Your task to perform on an android device: turn off notifications in google photos Image 0: 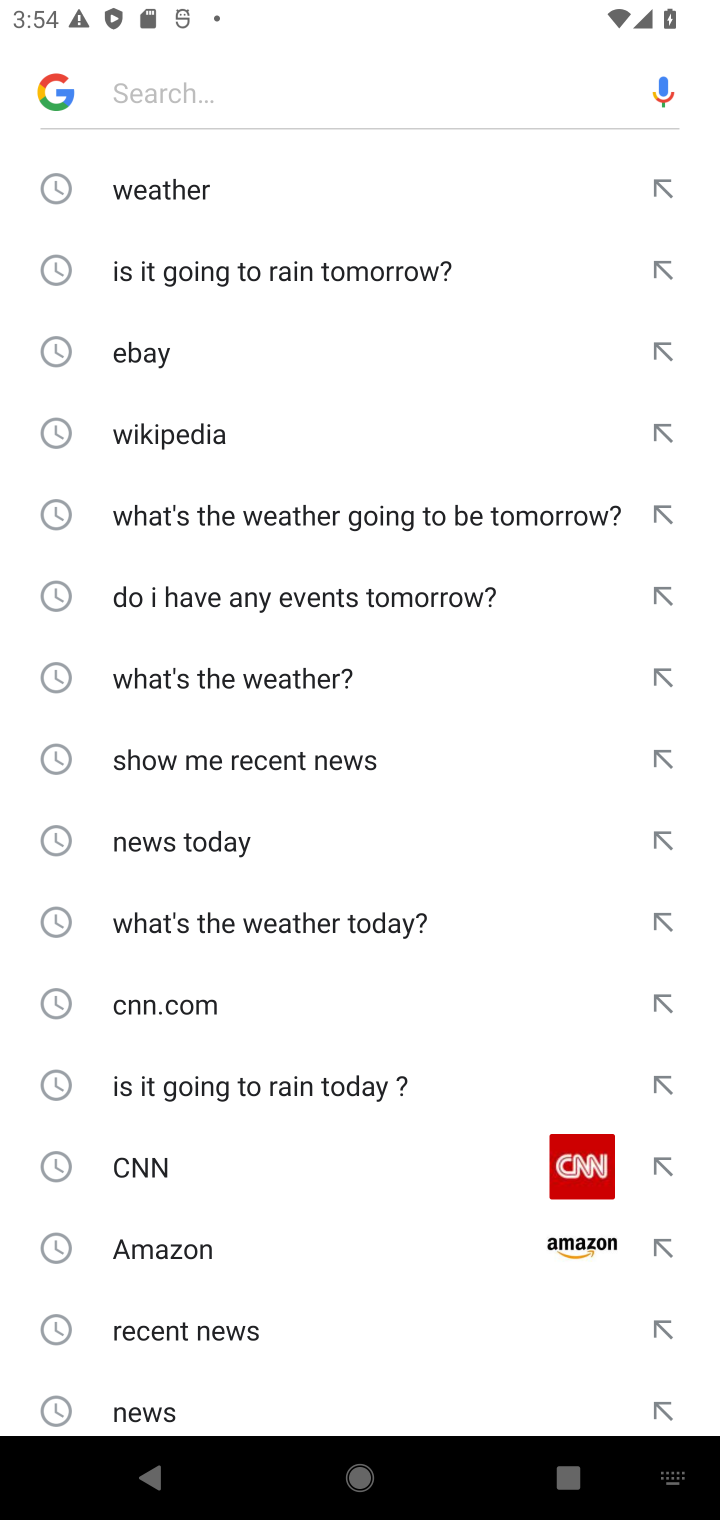
Step 0: press home button
Your task to perform on an android device: turn off notifications in google photos Image 1: 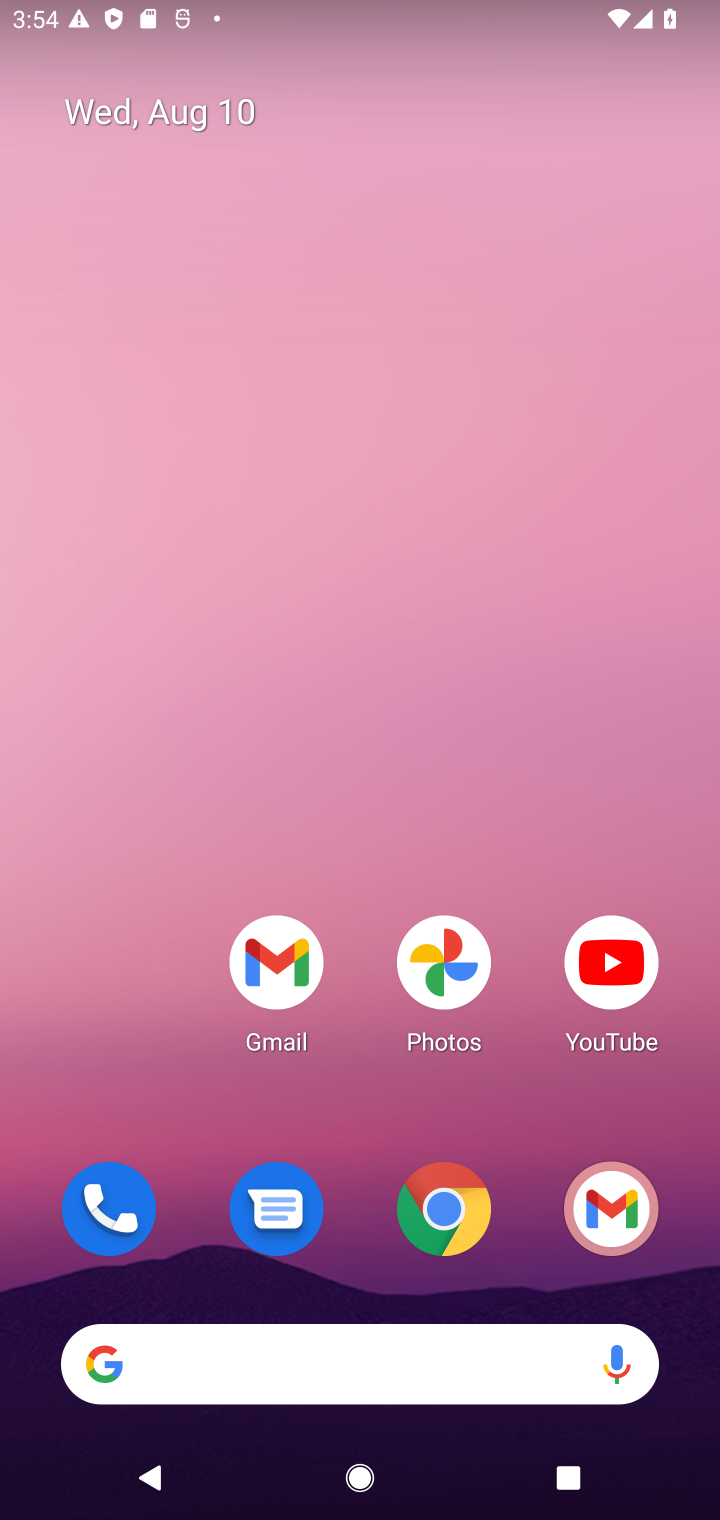
Step 1: click (461, 963)
Your task to perform on an android device: turn off notifications in google photos Image 2: 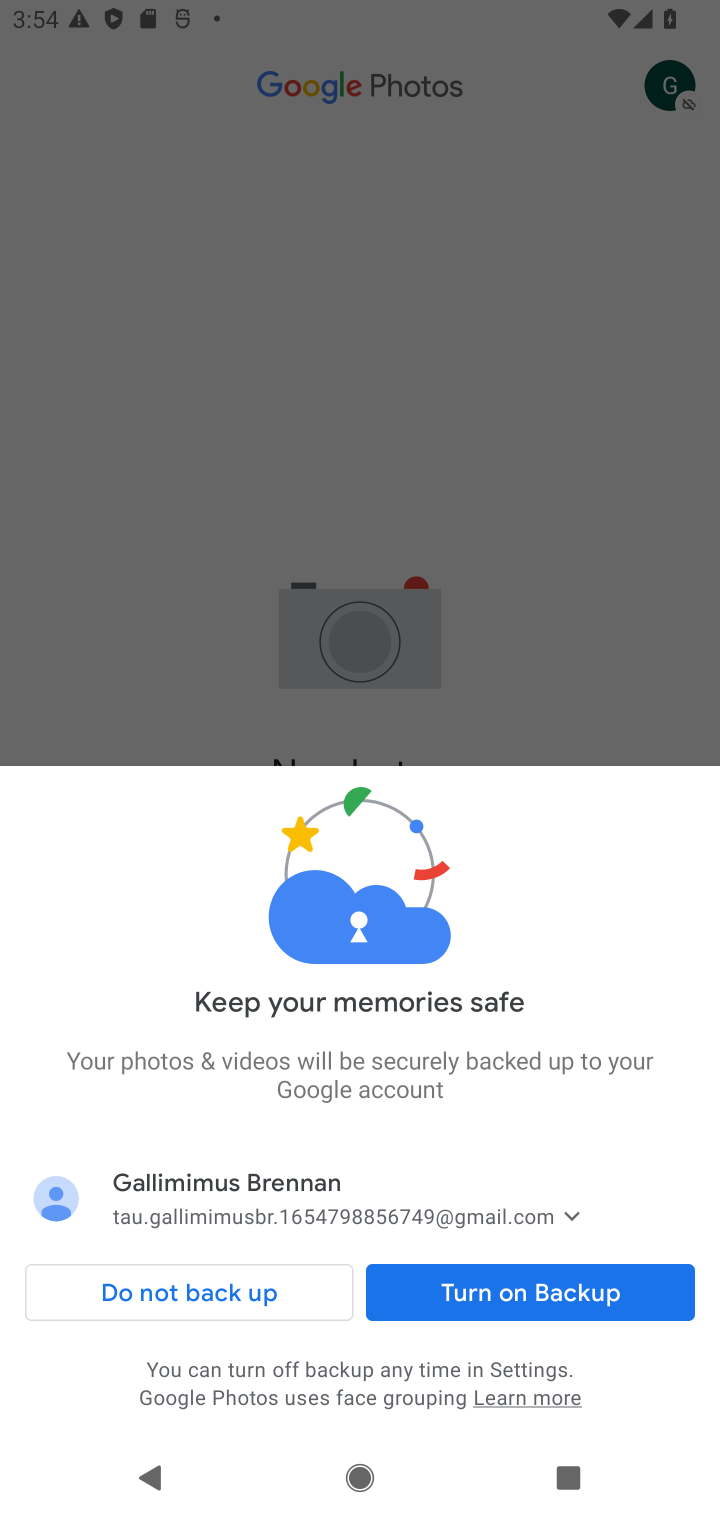
Step 2: click (554, 1287)
Your task to perform on an android device: turn off notifications in google photos Image 3: 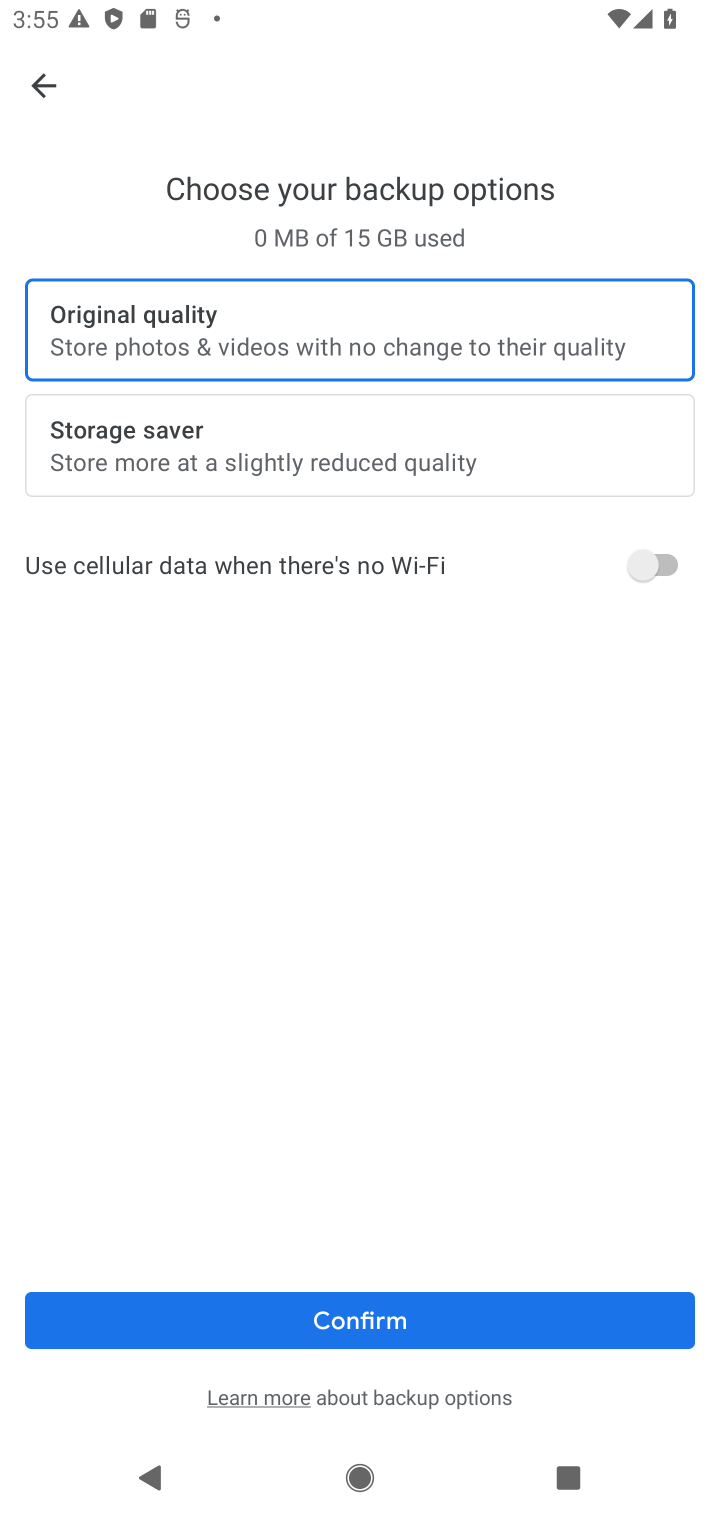
Step 3: click (554, 1287)
Your task to perform on an android device: turn off notifications in google photos Image 4: 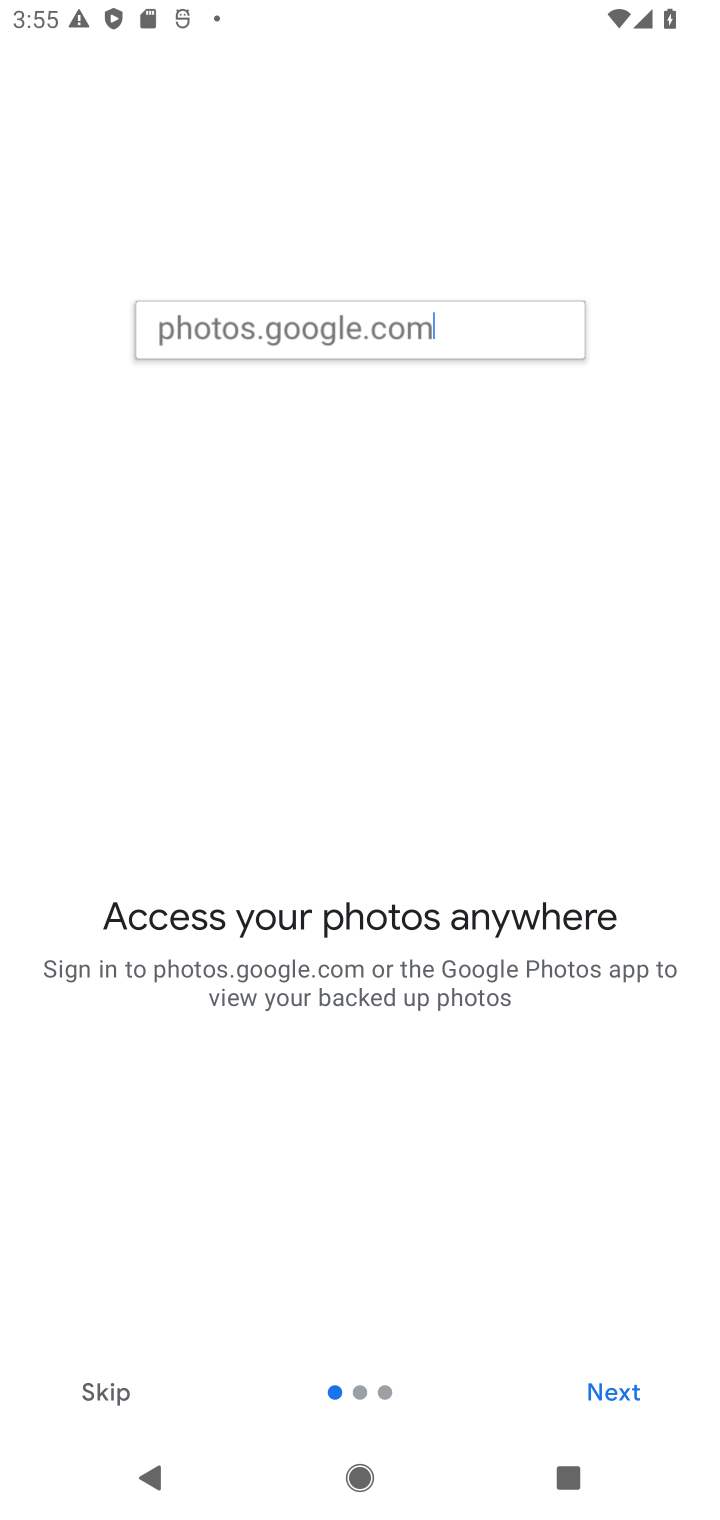
Step 4: click (615, 1381)
Your task to perform on an android device: turn off notifications in google photos Image 5: 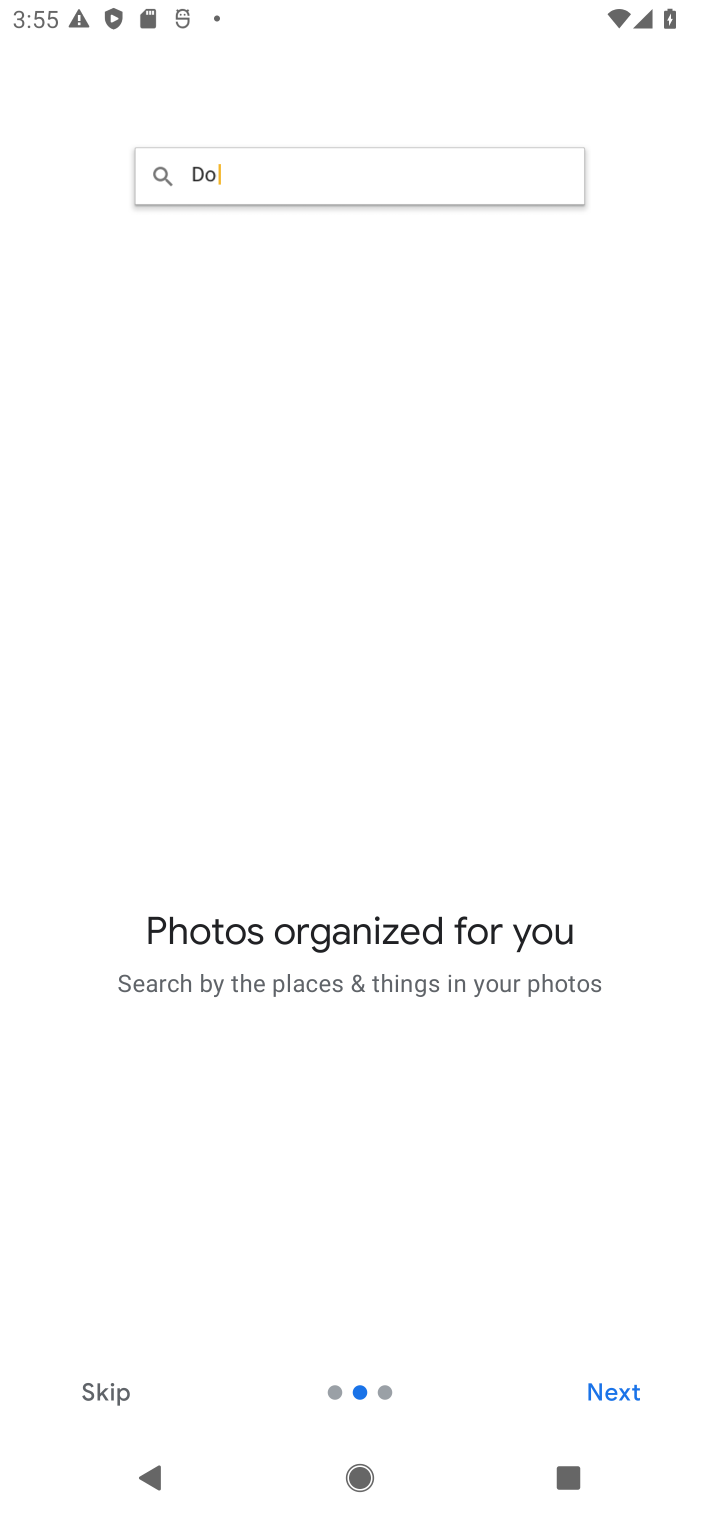
Step 5: click (615, 1381)
Your task to perform on an android device: turn off notifications in google photos Image 6: 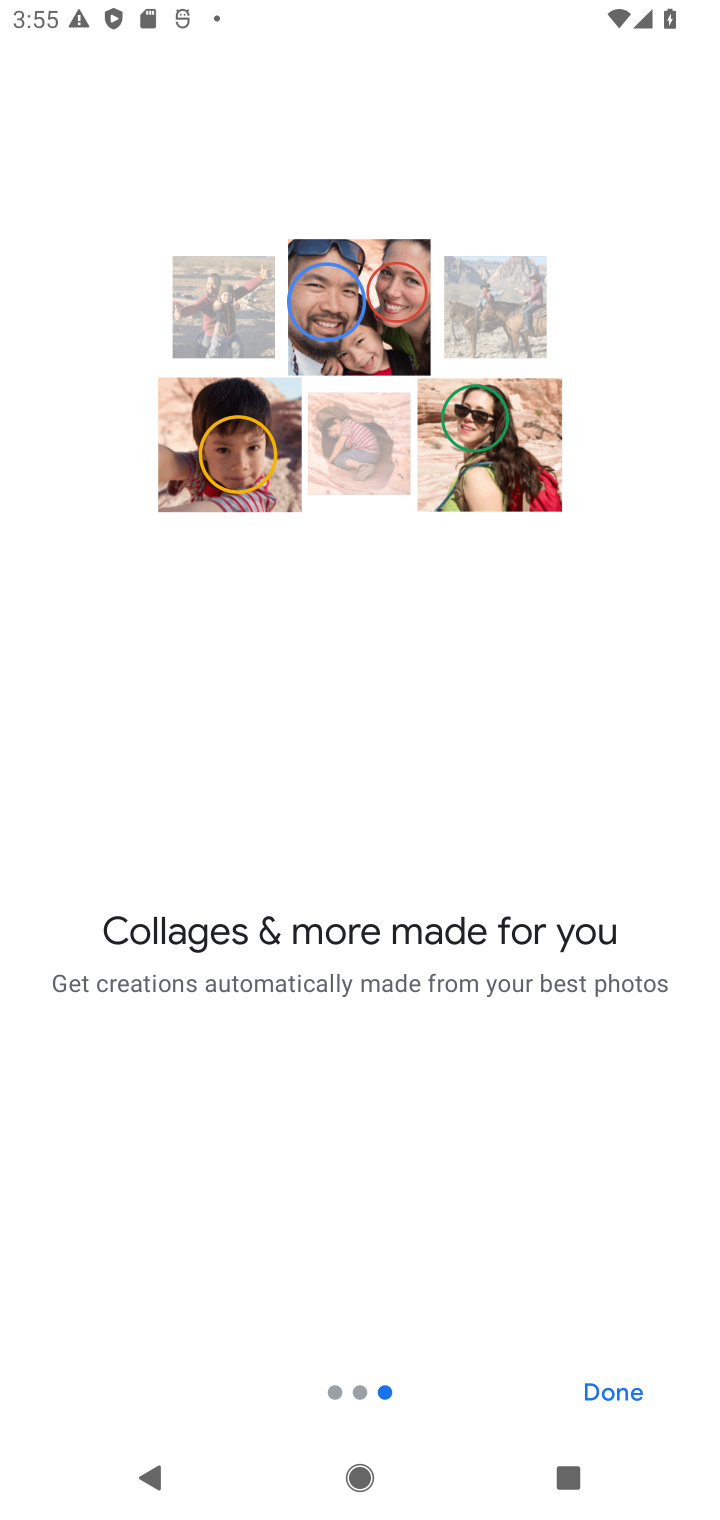
Step 6: click (615, 1381)
Your task to perform on an android device: turn off notifications in google photos Image 7: 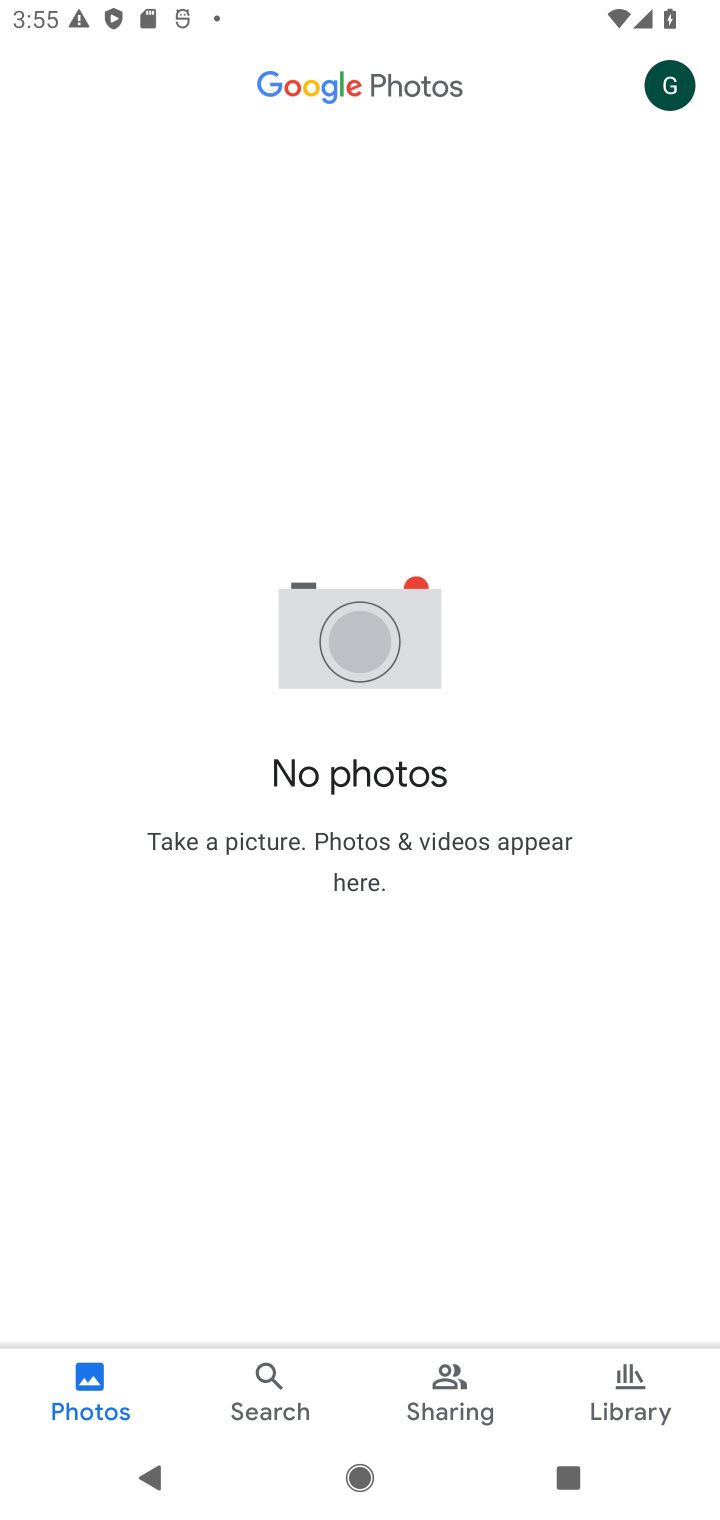
Step 7: click (677, 89)
Your task to perform on an android device: turn off notifications in google photos Image 8: 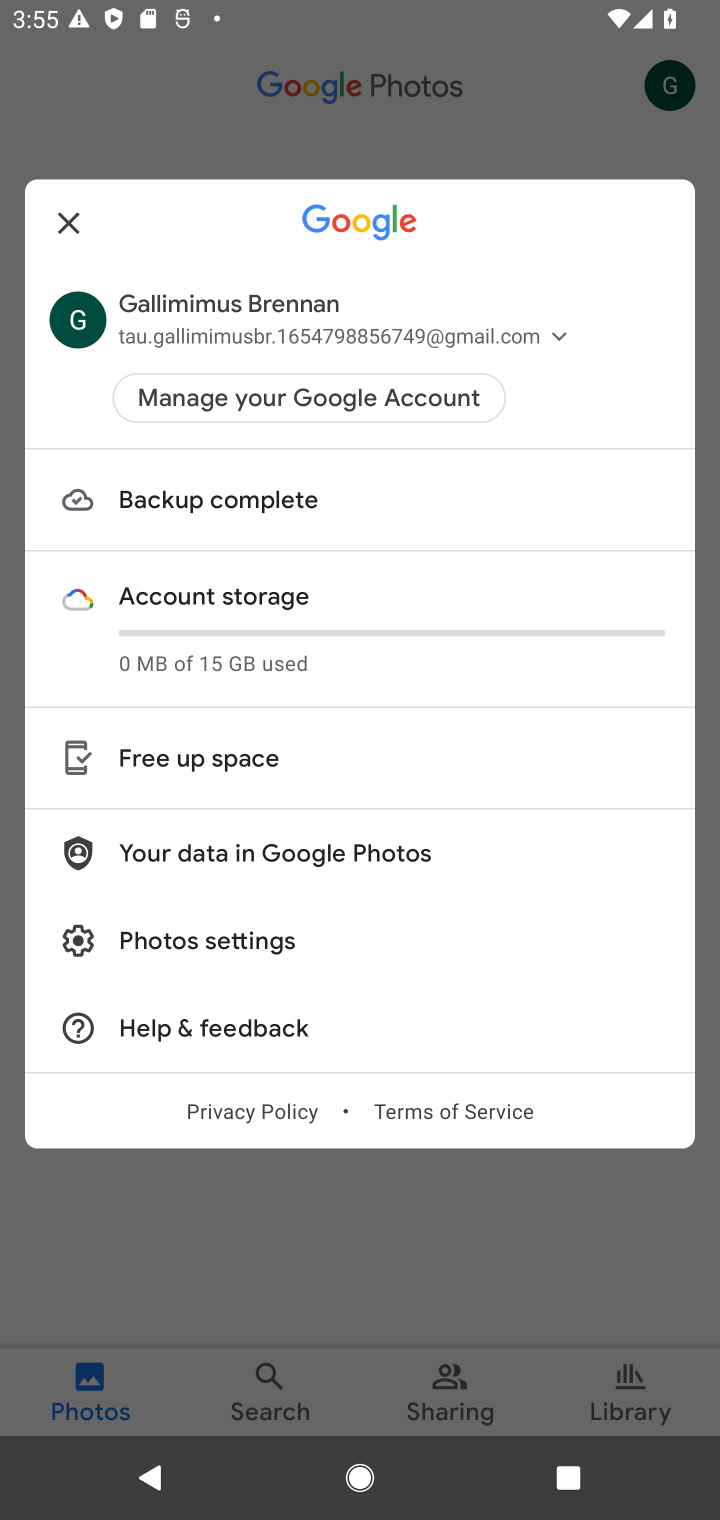
Step 8: click (313, 944)
Your task to perform on an android device: turn off notifications in google photos Image 9: 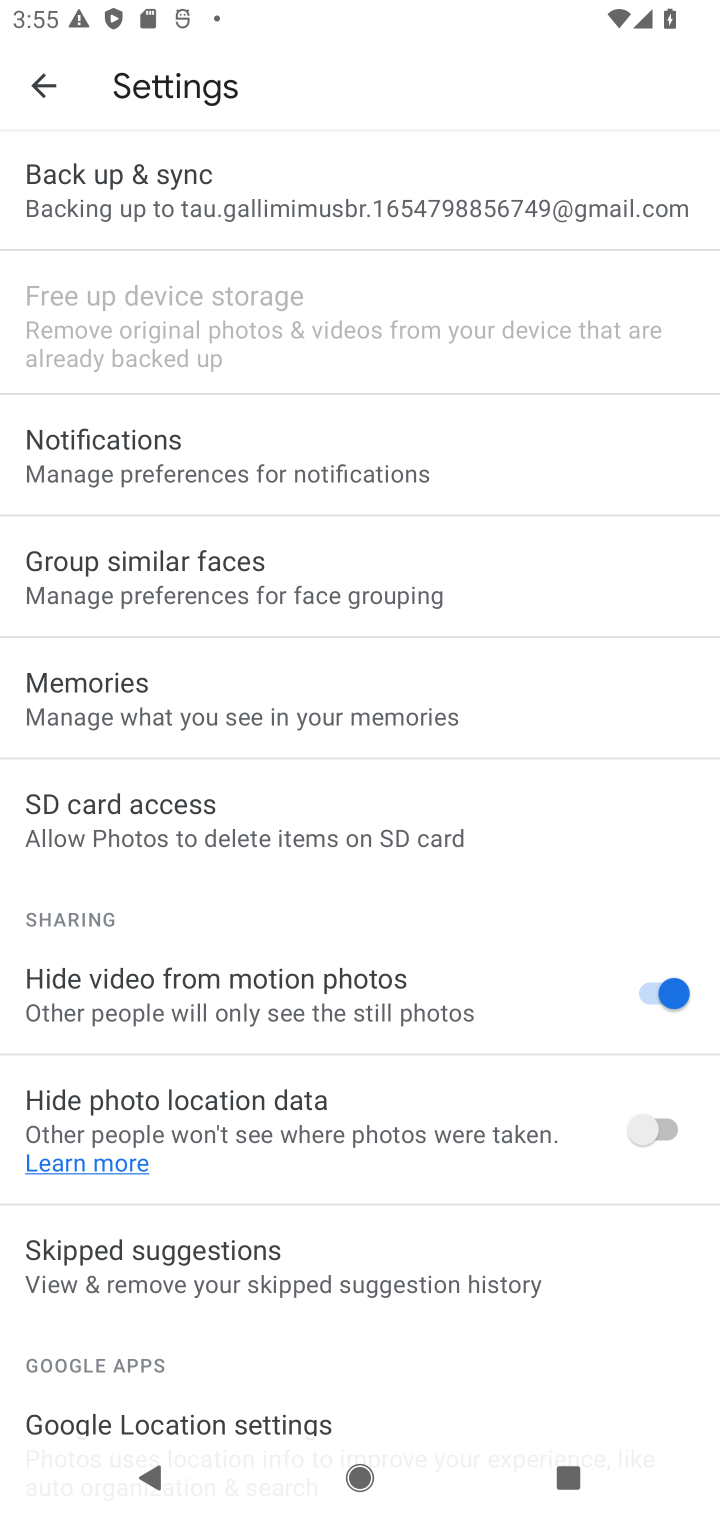
Step 9: click (518, 471)
Your task to perform on an android device: turn off notifications in google photos Image 10: 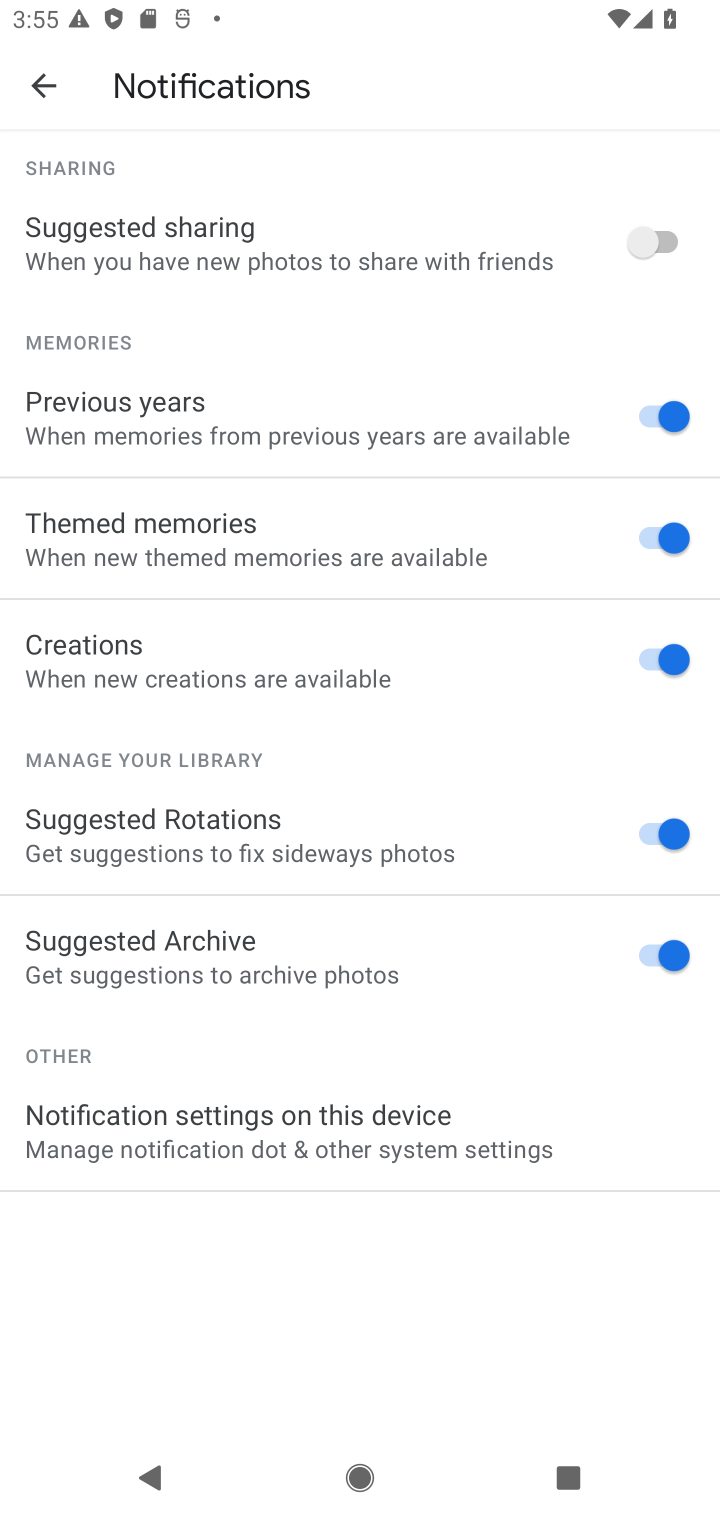
Step 10: click (256, 1105)
Your task to perform on an android device: turn off notifications in google photos Image 11: 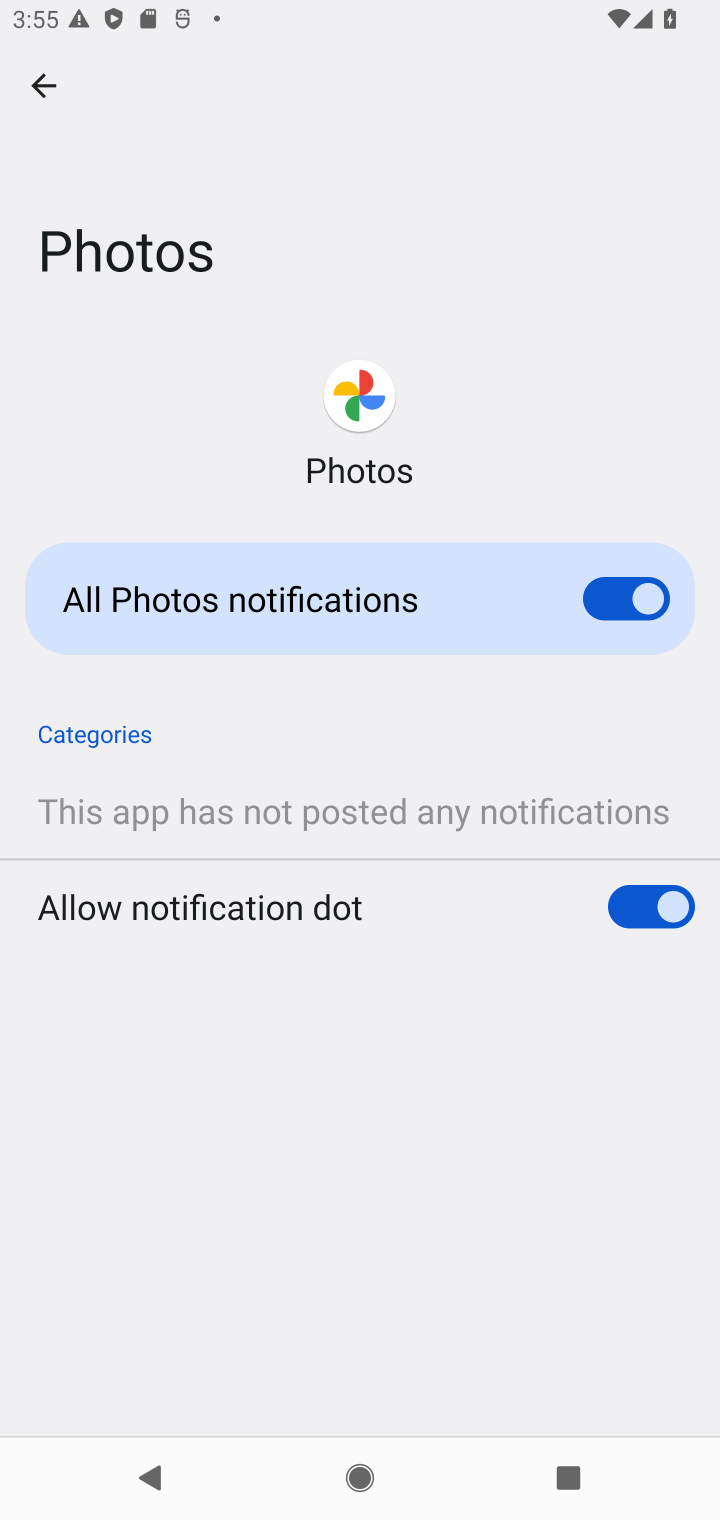
Step 11: click (647, 604)
Your task to perform on an android device: turn off notifications in google photos Image 12: 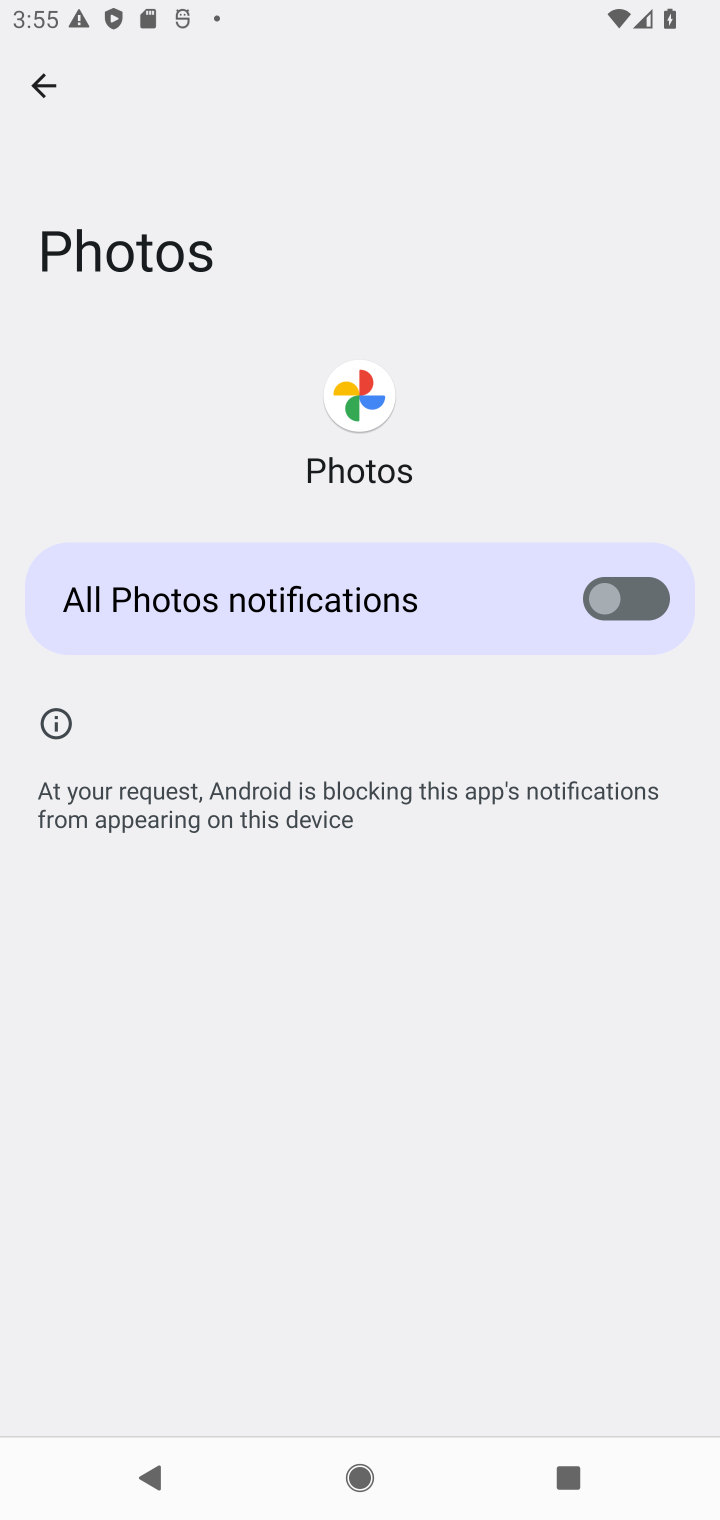
Step 12: task complete